Your task to perform on an android device: check google app version Image 0: 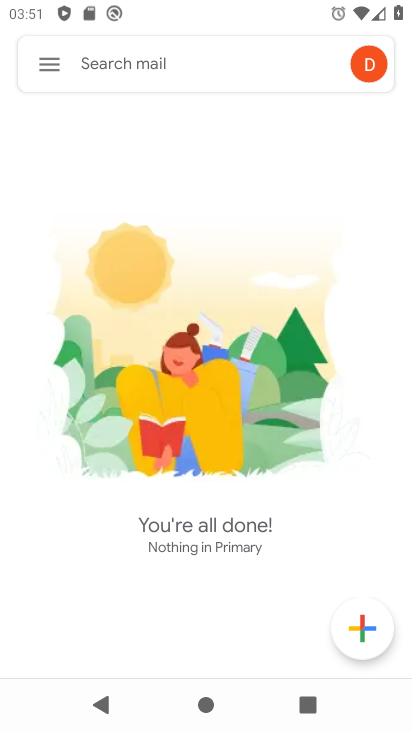
Step 0: press home button
Your task to perform on an android device: check google app version Image 1: 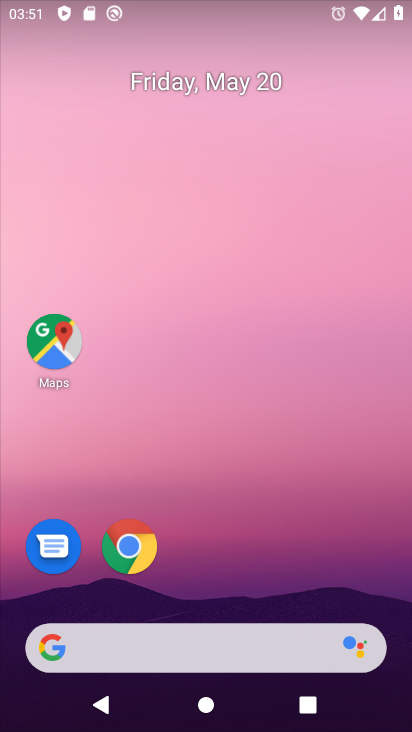
Step 1: drag from (259, 561) to (308, 76)
Your task to perform on an android device: check google app version Image 2: 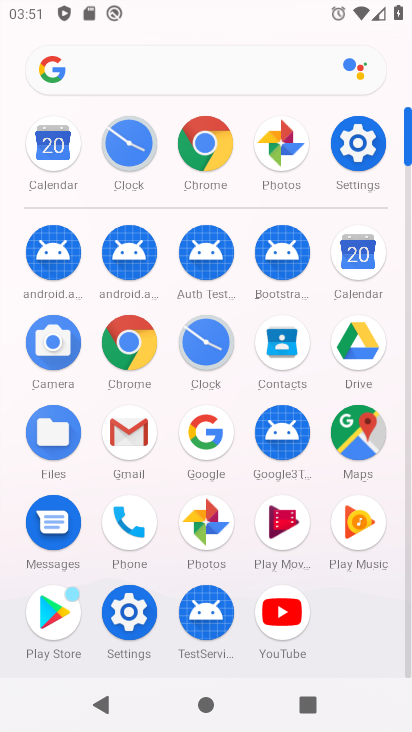
Step 2: click (194, 432)
Your task to perform on an android device: check google app version Image 3: 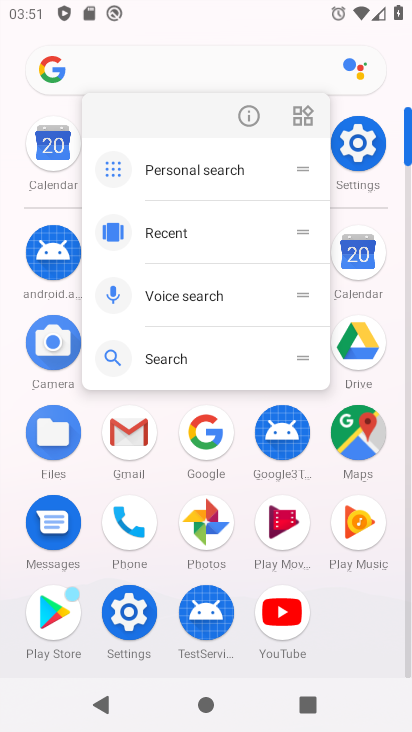
Step 3: click (253, 118)
Your task to perform on an android device: check google app version Image 4: 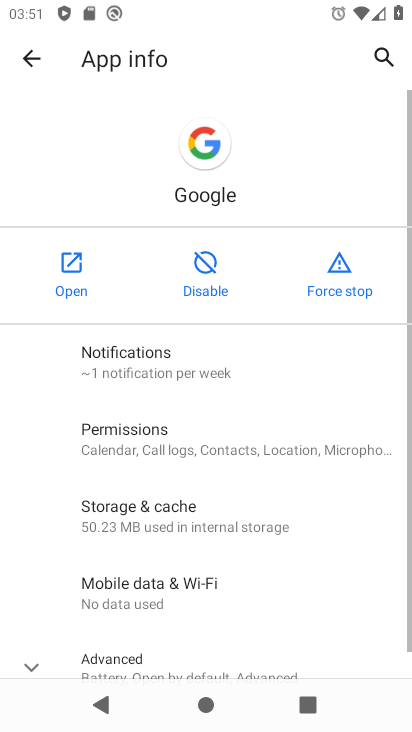
Step 4: drag from (216, 499) to (351, 100)
Your task to perform on an android device: check google app version Image 5: 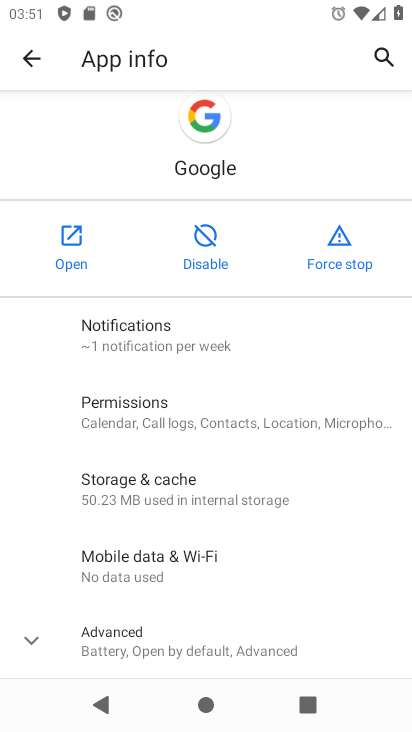
Step 5: click (145, 644)
Your task to perform on an android device: check google app version Image 6: 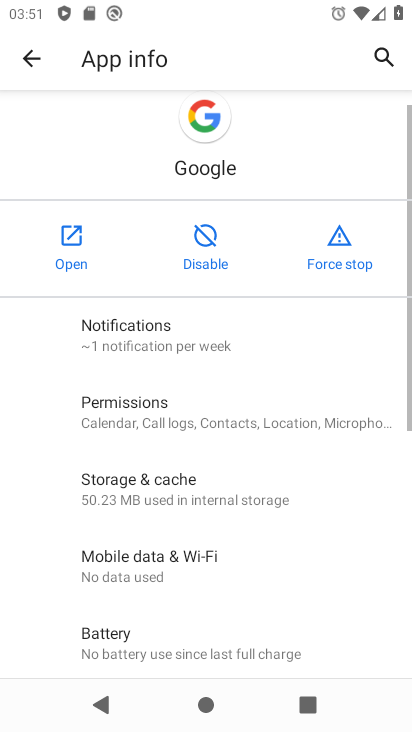
Step 6: task complete